Your task to perform on an android device: add a label to a message in the gmail app Image 0: 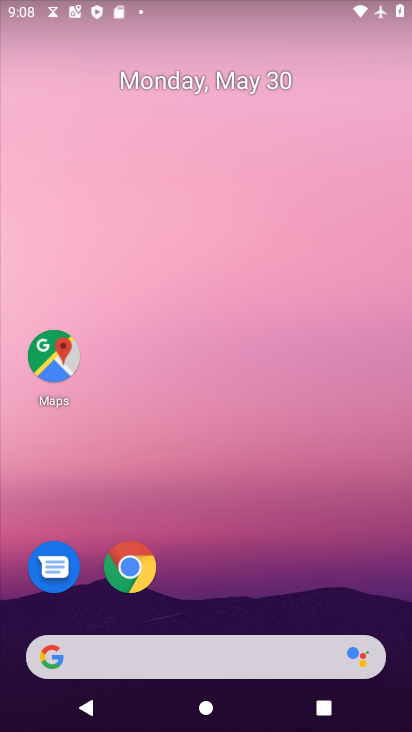
Step 0: drag from (238, 600) to (169, 61)
Your task to perform on an android device: add a label to a message in the gmail app Image 1: 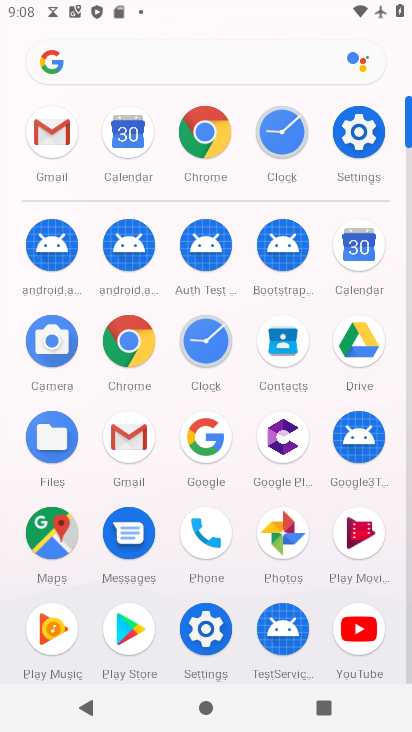
Step 1: click (68, 138)
Your task to perform on an android device: add a label to a message in the gmail app Image 2: 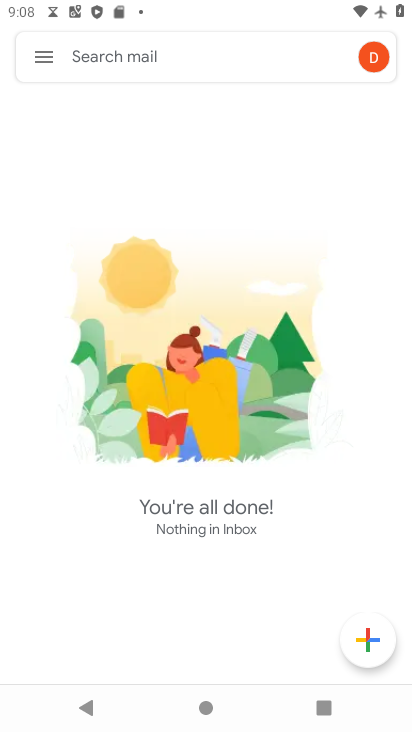
Step 2: task complete